Your task to perform on an android device: Open maps Image 0: 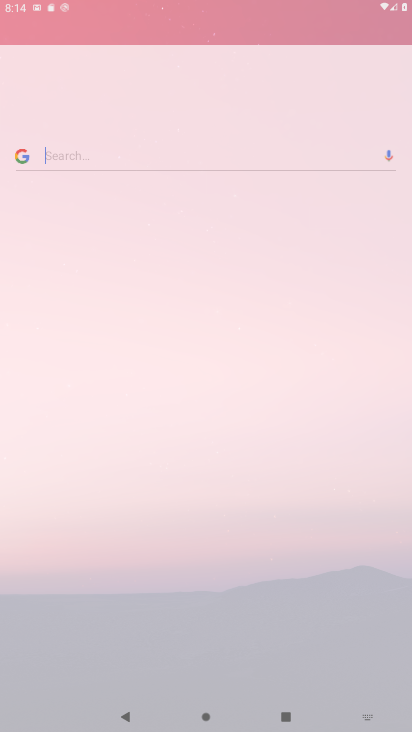
Step 0: click (176, 13)
Your task to perform on an android device: Open maps Image 1: 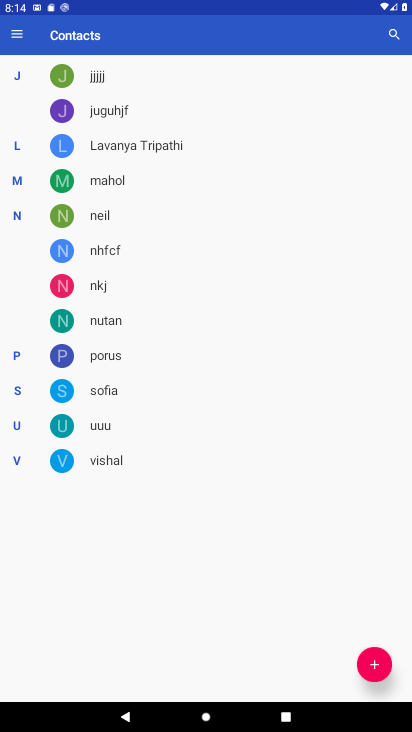
Step 1: press home button
Your task to perform on an android device: Open maps Image 2: 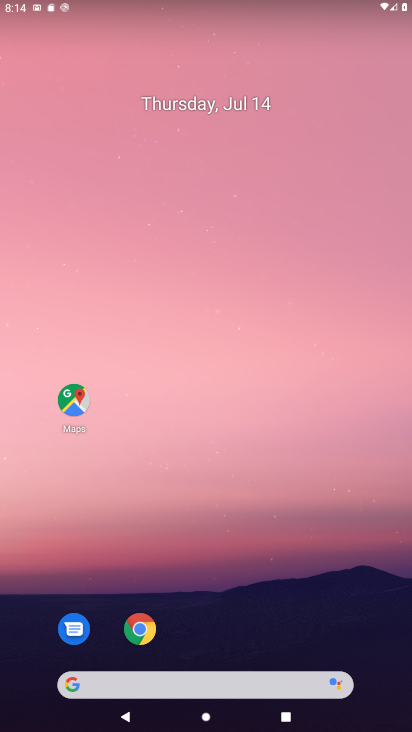
Step 2: click (84, 396)
Your task to perform on an android device: Open maps Image 3: 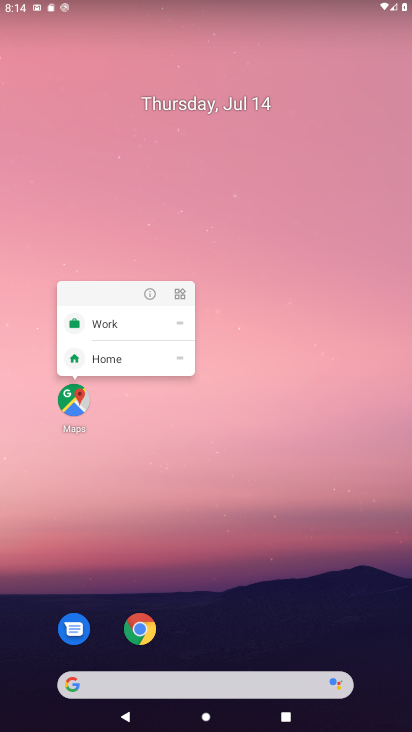
Step 3: click (84, 402)
Your task to perform on an android device: Open maps Image 4: 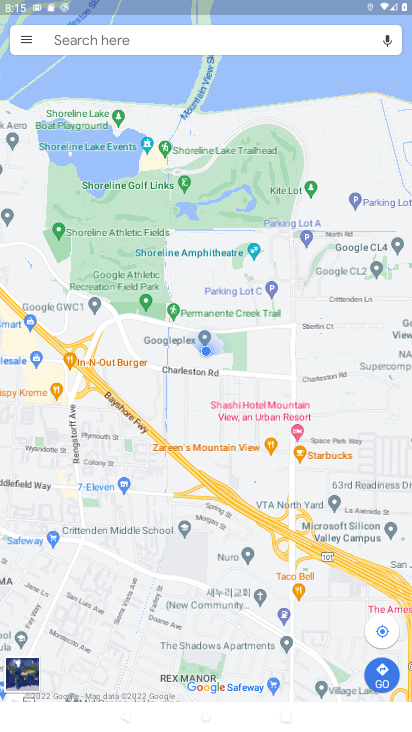
Step 4: task complete